Your task to perform on an android device: check the backup settings in the google photos Image 0: 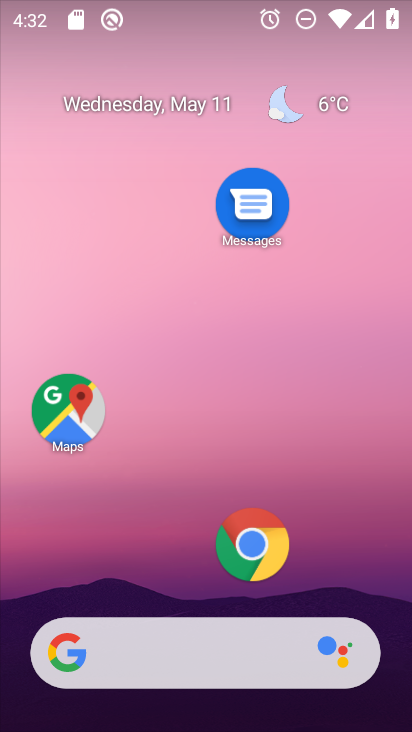
Step 0: drag from (160, 529) to (263, 11)
Your task to perform on an android device: check the backup settings in the google photos Image 1: 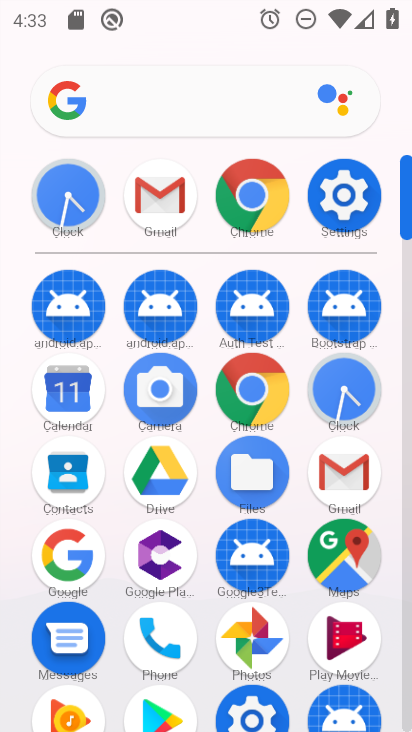
Step 1: click (252, 638)
Your task to perform on an android device: check the backup settings in the google photos Image 2: 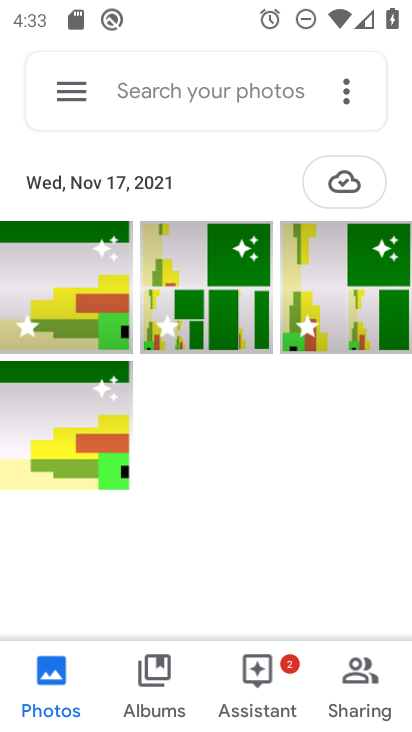
Step 2: click (60, 81)
Your task to perform on an android device: check the backup settings in the google photos Image 3: 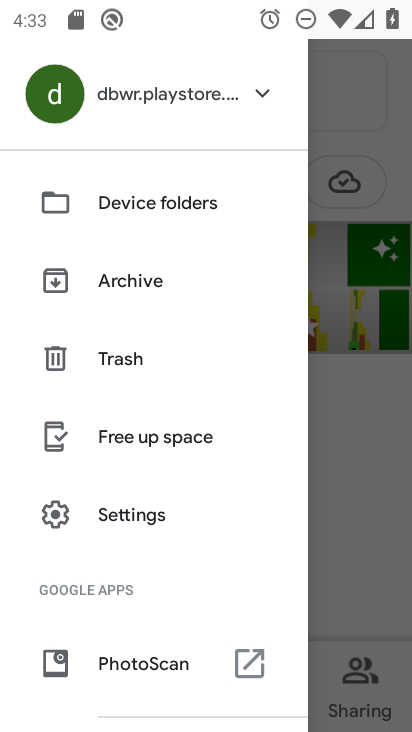
Step 3: click (134, 515)
Your task to perform on an android device: check the backup settings in the google photos Image 4: 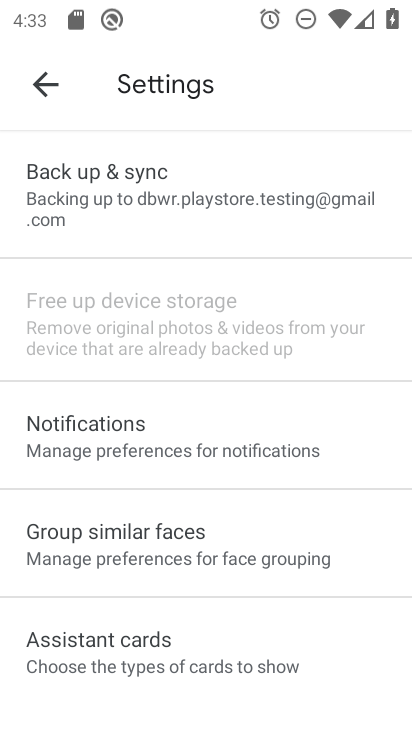
Step 4: click (102, 201)
Your task to perform on an android device: check the backup settings in the google photos Image 5: 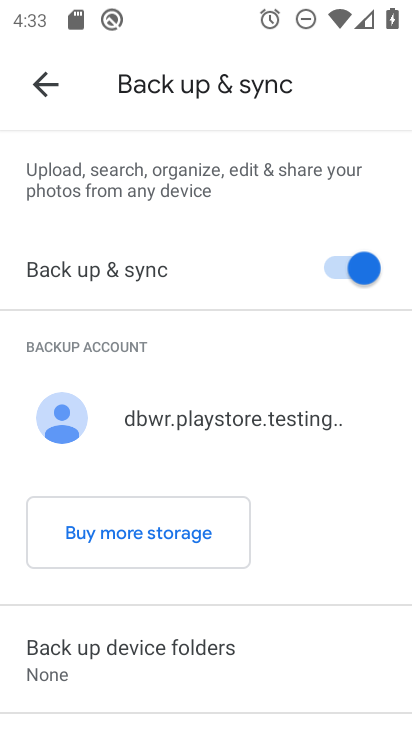
Step 5: task complete